Your task to perform on an android device: Do I have any events tomorrow? Image 0: 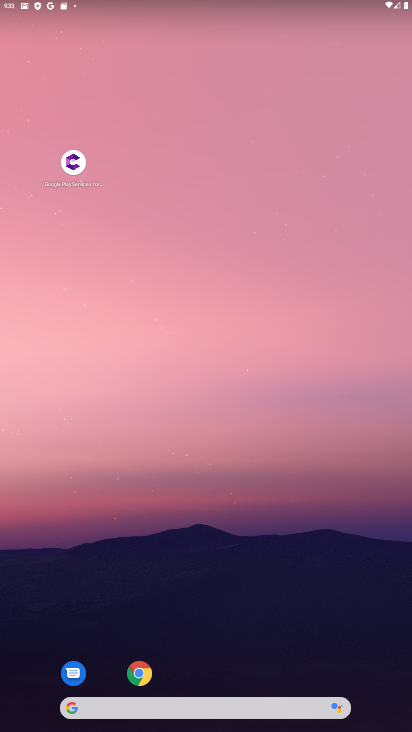
Step 0: drag from (188, 677) to (219, 276)
Your task to perform on an android device: Do I have any events tomorrow? Image 1: 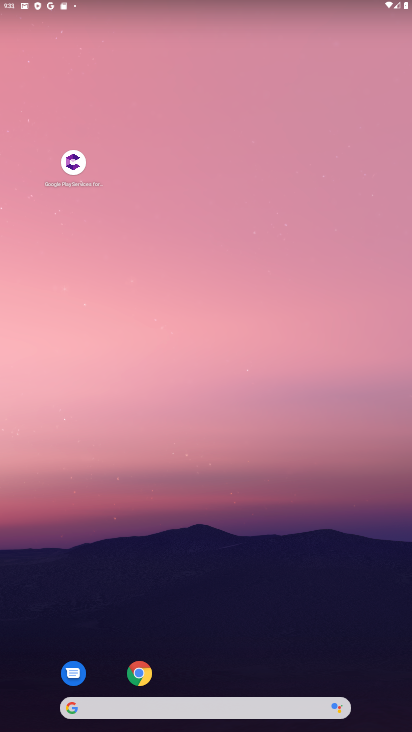
Step 1: drag from (237, 691) to (247, 137)
Your task to perform on an android device: Do I have any events tomorrow? Image 2: 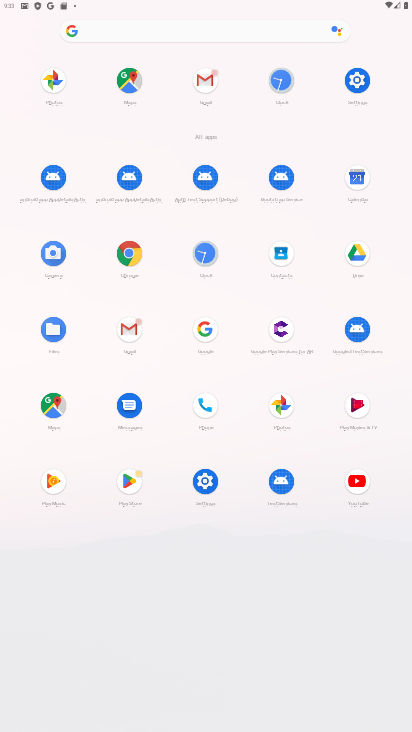
Step 2: click (360, 182)
Your task to perform on an android device: Do I have any events tomorrow? Image 3: 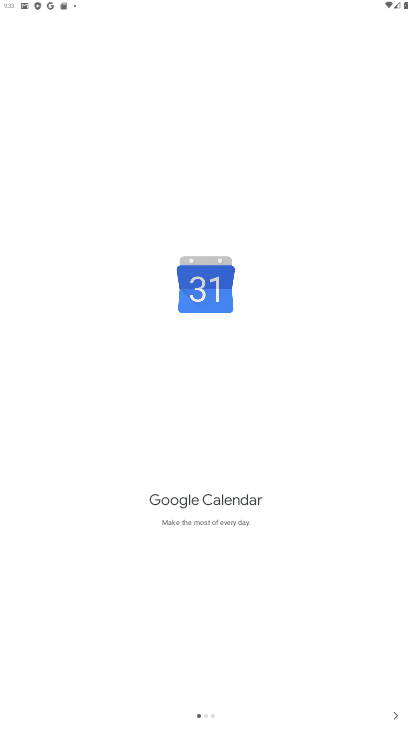
Step 3: click (385, 714)
Your task to perform on an android device: Do I have any events tomorrow? Image 4: 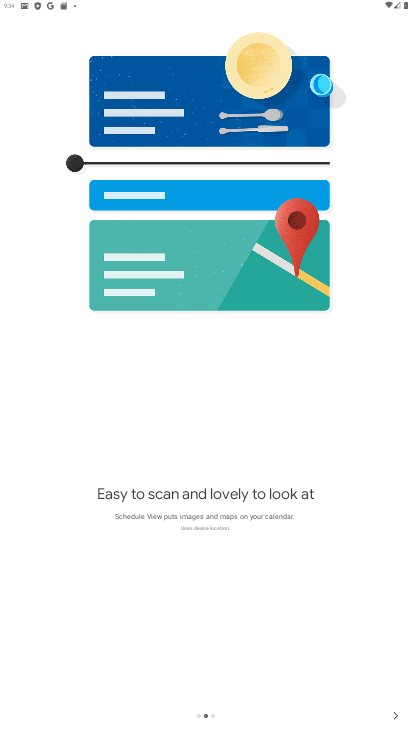
Step 4: click (385, 714)
Your task to perform on an android device: Do I have any events tomorrow? Image 5: 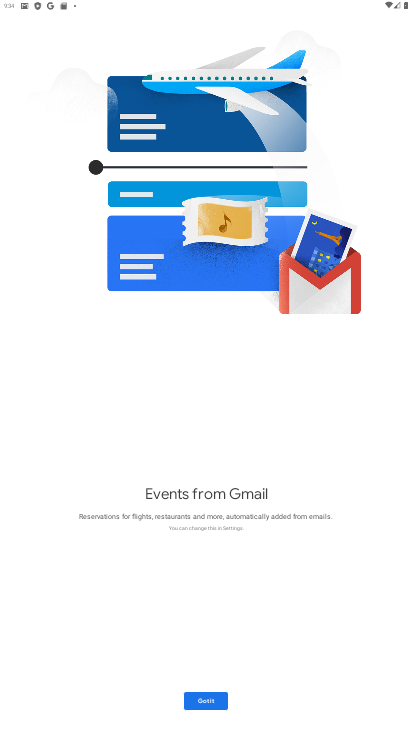
Step 5: click (385, 714)
Your task to perform on an android device: Do I have any events tomorrow? Image 6: 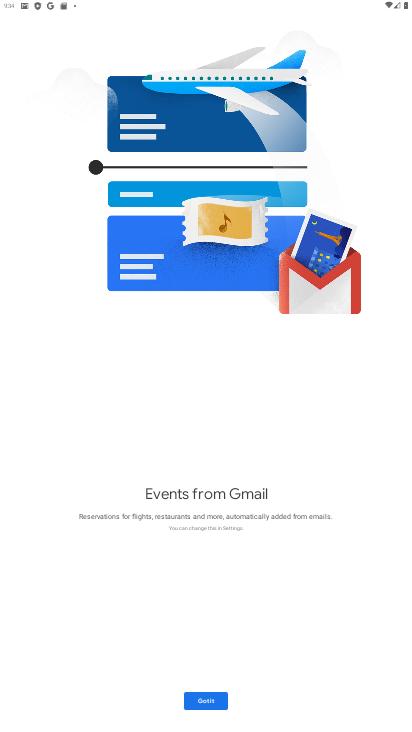
Step 6: click (211, 698)
Your task to perform on an android device: Do I have any events tomorrow? Image 7: 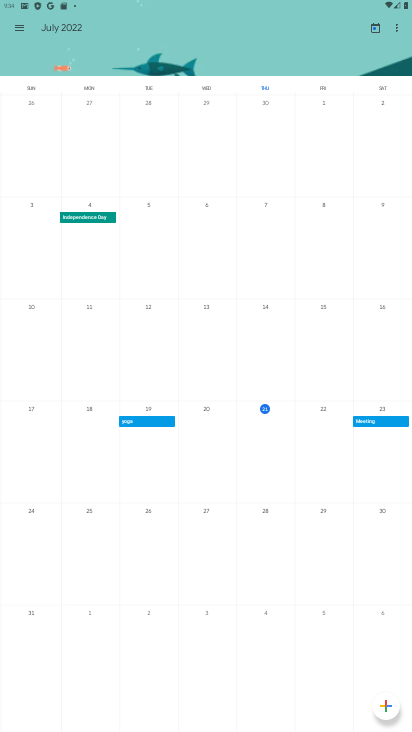
Step 7: click (378, 409)
Your task to perform on an android device: Do I have any events tomorrow? Image 8: 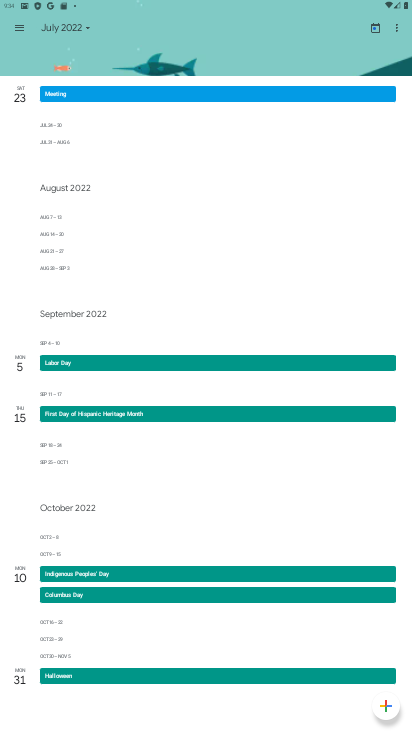
Step 8: task complete